Your task to perform on an android device: choose inbox layout in the gmail app Image 0: 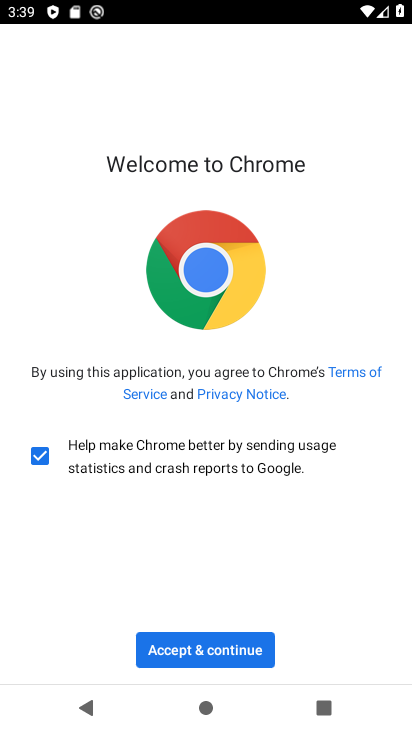
Step 0: press back button
Your task to perform on an android device: choose inbox layout in the gmail app Image 1: 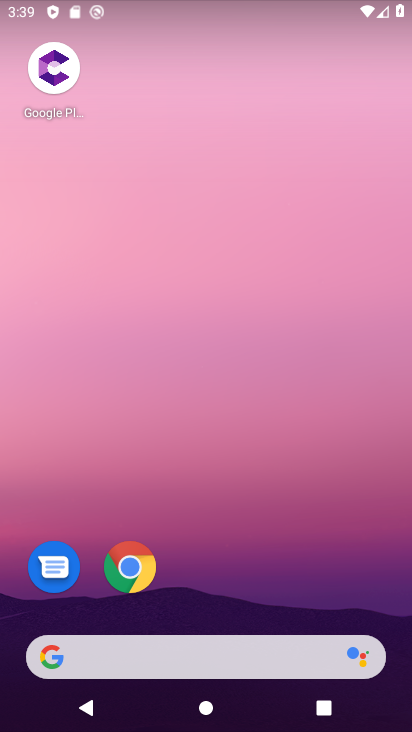
Step 1: drag from (210, 601) to (310, 153)
Your task to perform on an android device: choose inbox layout in the gmail app Image 2: 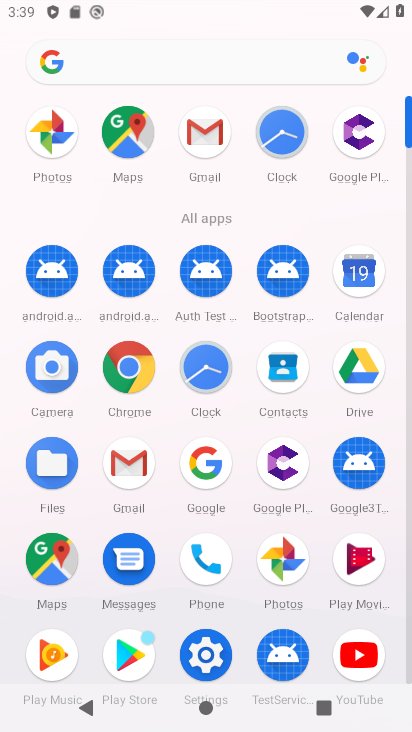
Step 2: click (125, 455)
Your task to perform on an android device: choose inbox layout in the gmail app Image 3: 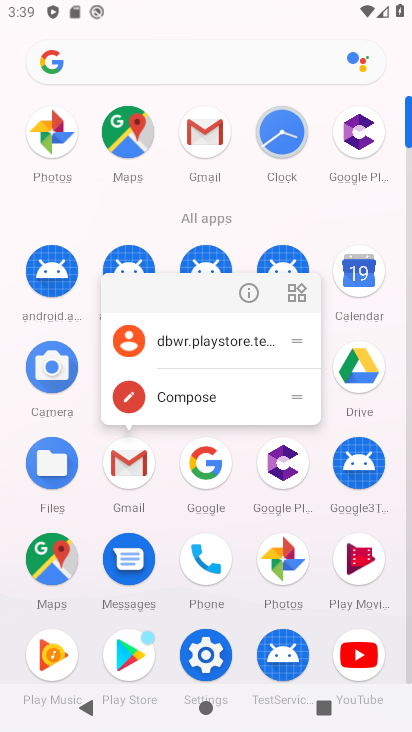
Step 3: click (122, 475)
Your task to perform on an android device: choose inbox layout in the gmail app Image 4: 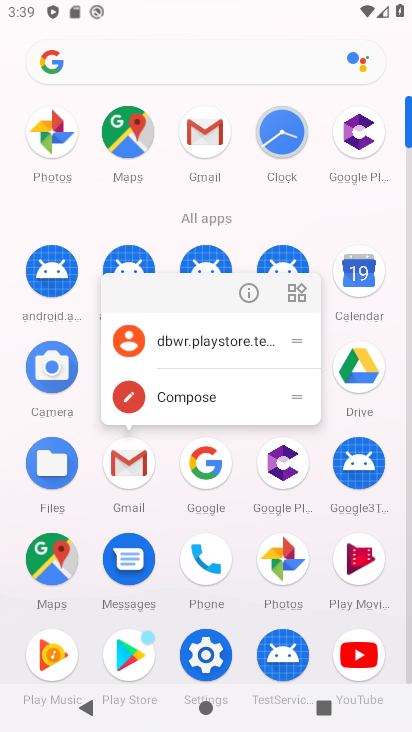
Step 4: click (135, 465)
Your task to perform on an android device: choose inbox layout in the gmail app Image 5: 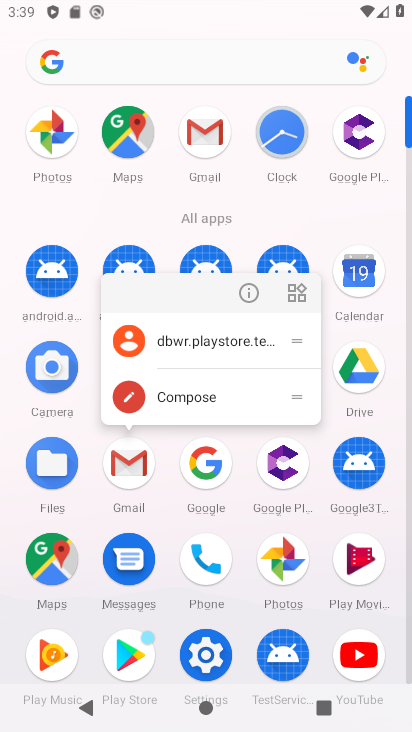
Step 5: click (131, 457)
Your task to perform on an android device: choose inbox layout in the gmail app Image 6: 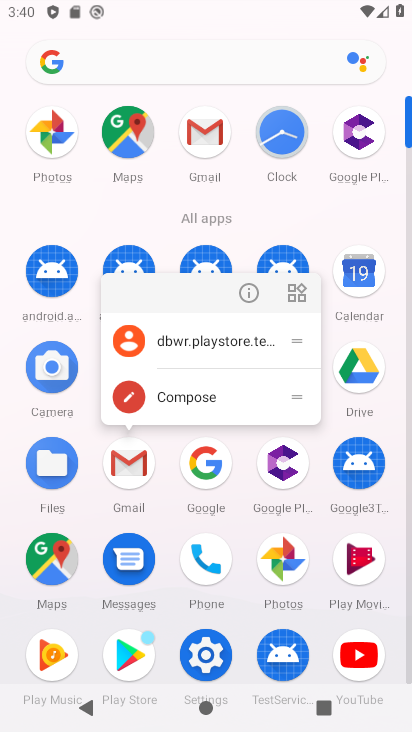
Step 6: click (131, 457)
Your task to perform on an android device: choose inbox layout in the gmail app Image 7: 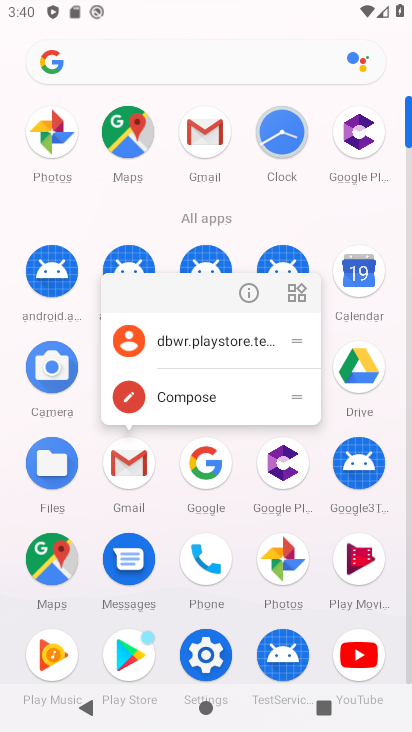
Step 7: click (115, 462)
Your task to perform on an android device: choose inbox layout in the gmail app Image 8: 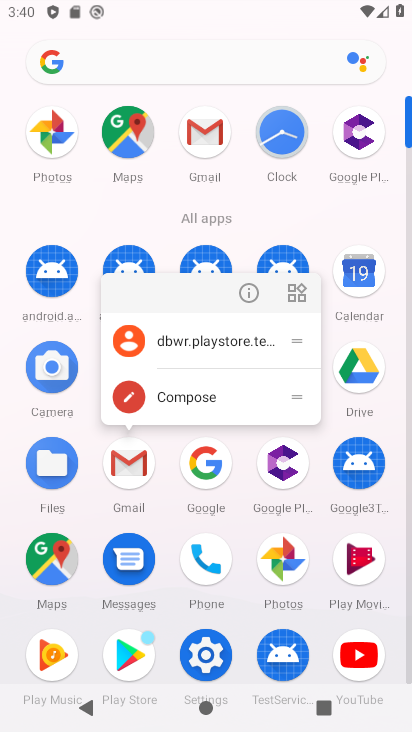
Step 8: click (144, 477)
Your task to perform on an android device: choose inbox layout in the gmail app Image 9: 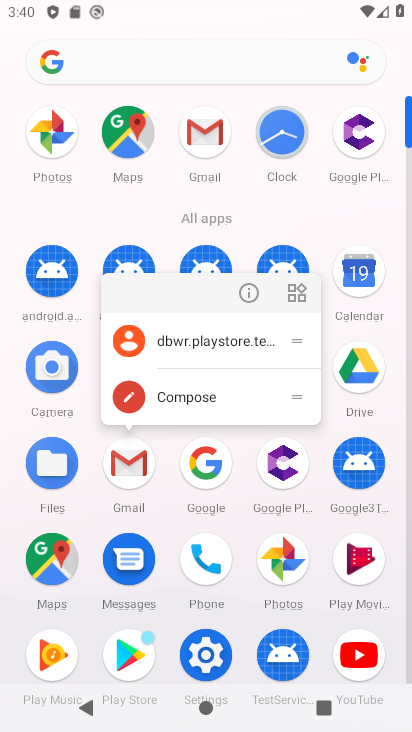
Step 9: click (136, 480)
Your task to perform on an android device: choose inbox layout in the gmail app Image 10: 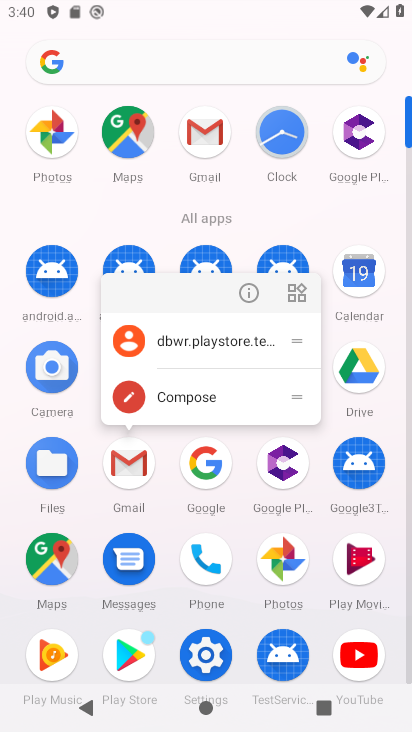
Step 10: click (131, 488)
Your task to perform on an android device: choose inbox layout in the gmail app Image 11: 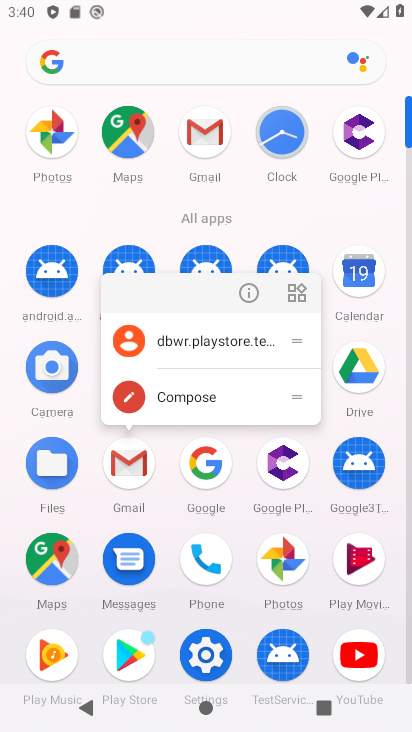
Step 11: click (134, 442)
Your task to perform on an android device: choose inbox layout in the gmail app Image 12: 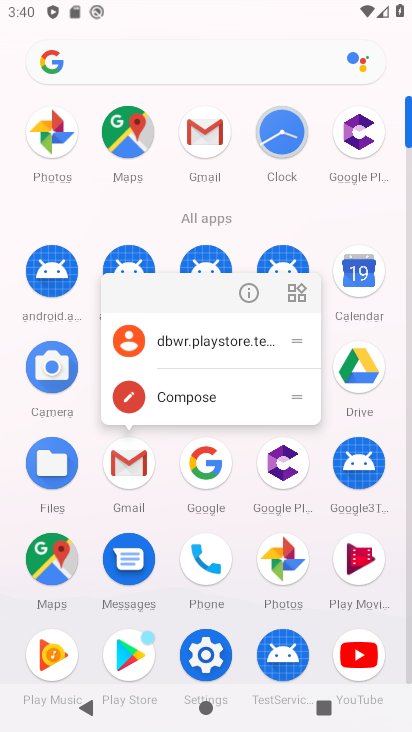
Step 12: click (125, 462)
Your task to perform on an android device: choose inbox layout in the gmail app Image 13: 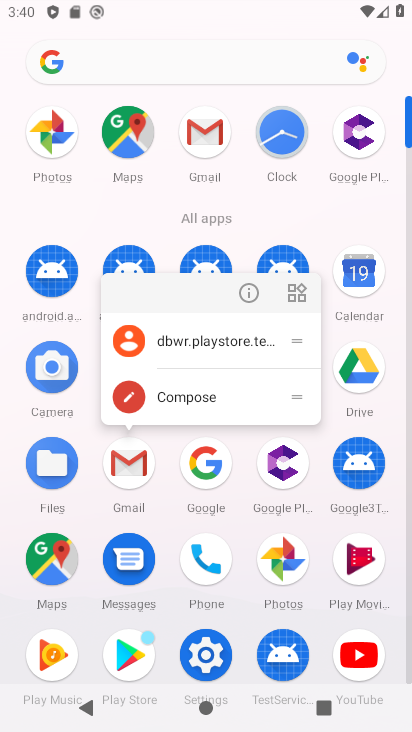
Step 13: click (127, 482)
Your task to perform on an android device: choose inbox layout in the gmail app Image 14: 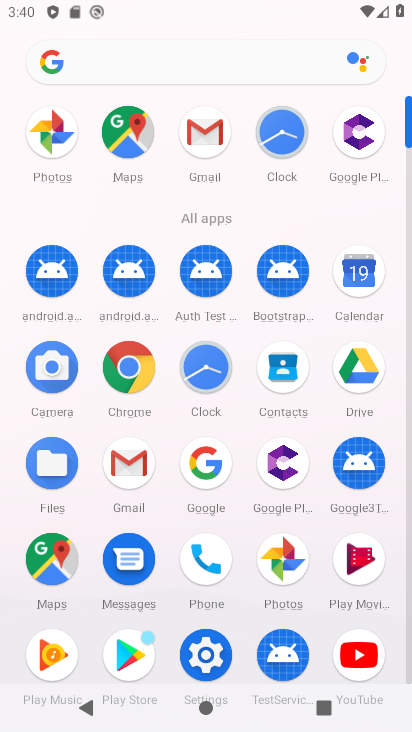
Step 14: click (139, 474)
Your task to perform on an android device: choose inbox layout in the gmail app Image 15: 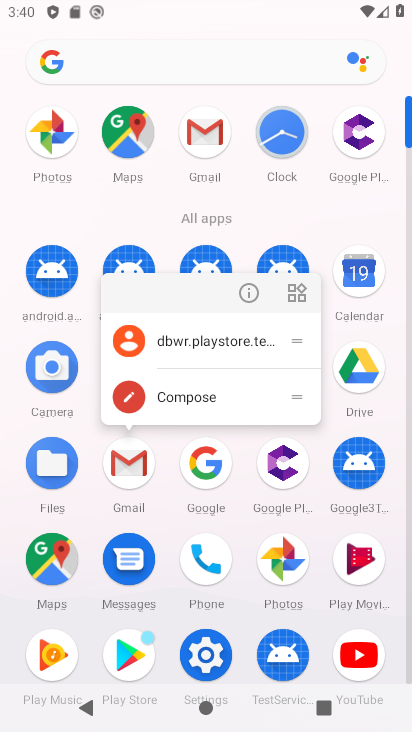
Step 15: click (139, 474)
Your task to perform on an android device: choose inbox layout in the gmail app Image 16: 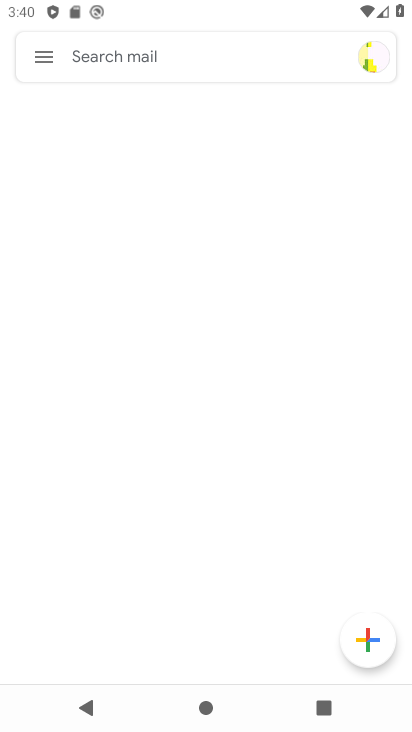
Step 16: click (115, 463)
Your task to perform on an android device: choose inbox layout in the gmail app Image 17: 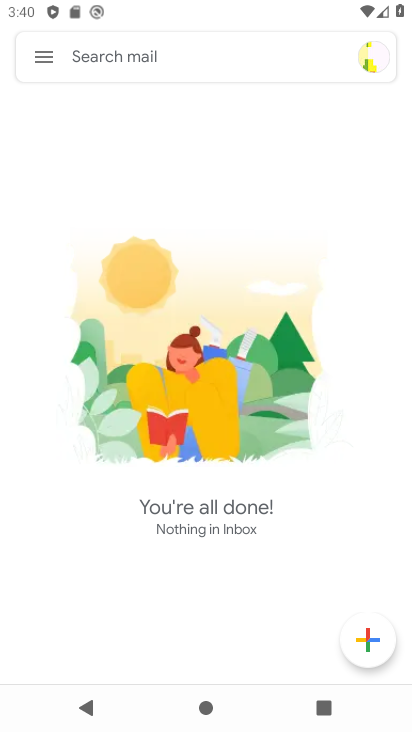
Step 17: click (44, 59)
Your task to perform on an android device: choose inbox layout in the gmail app Image 18: 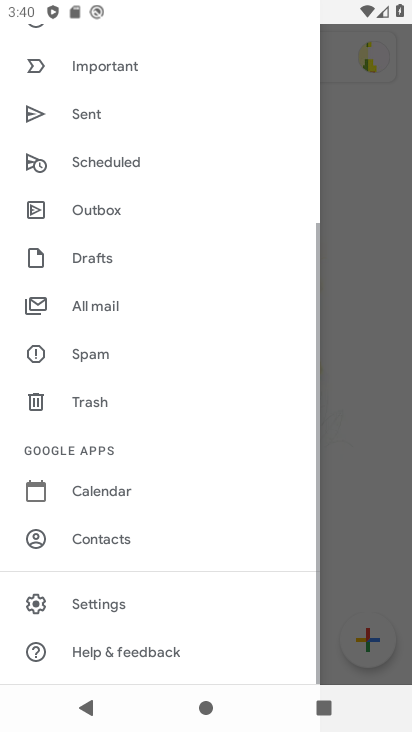
Step 18: drag from (171, 521) to (205, 364)
Your task to perform on an android device: choose inbox layout in the gmail app Image 19: 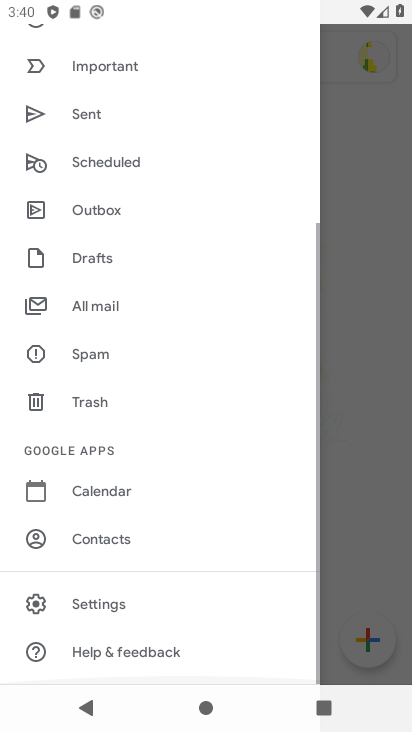
Step 19: click (164, 611)
Your task to perform on an android device: choose inbox layout in the gmail app Image 20: 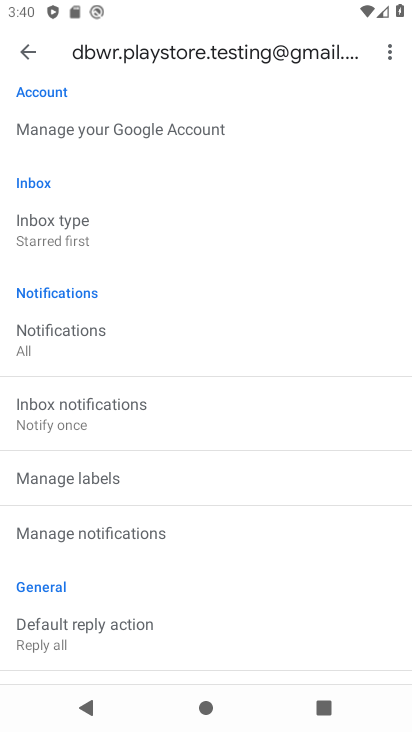
Step 20: click (141, 236)
Your task to perform on an android device: choose inbox layout in the gmail app Image 21: 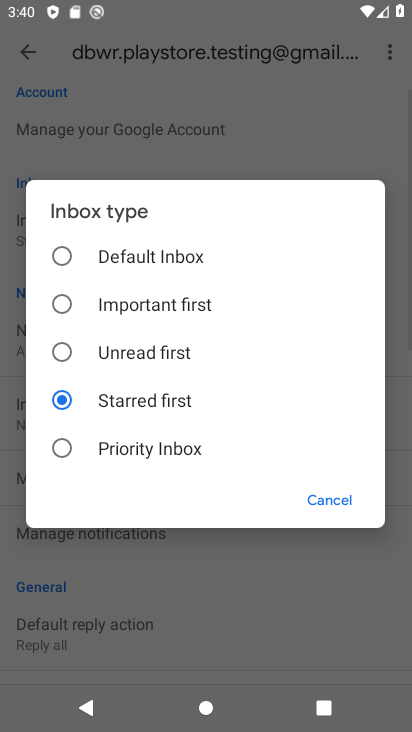
Step 21: click (185, 367)
Your task to perform on an android device: choose inbox layout in the gmail app Image 22: 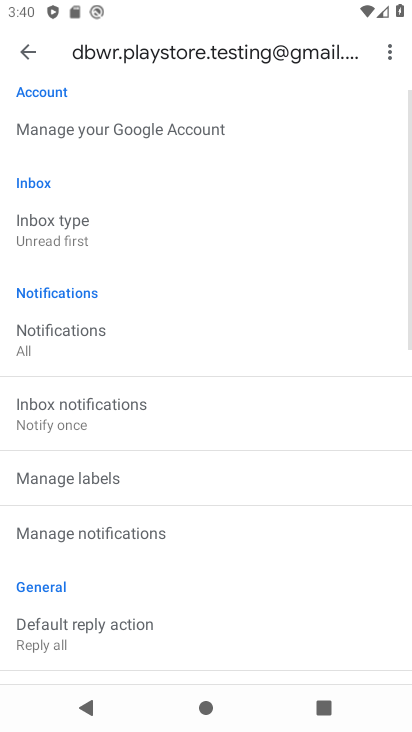
Step 22: task complete